Your task to perform on an android device: Go to display settings Image 0: 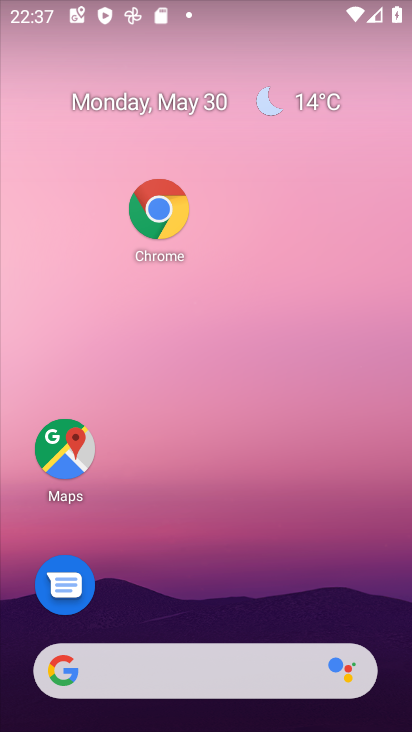
Step 0: click (301, 69)
Your task to perform on an android device: Go to display settings Image 1: 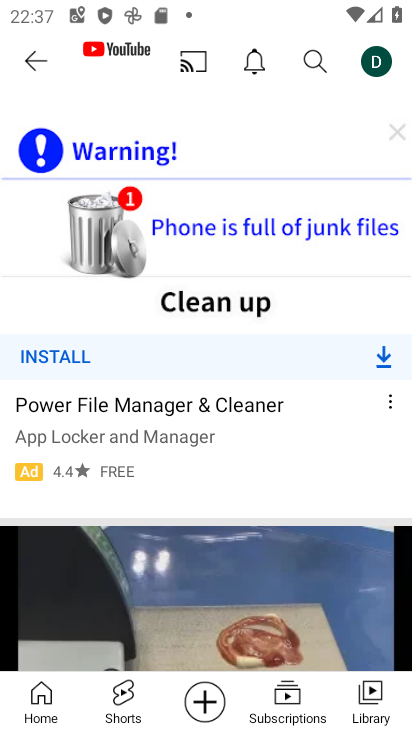
Step 1: press home button
Your task to perform on an android device: Go to display settings Image 2: 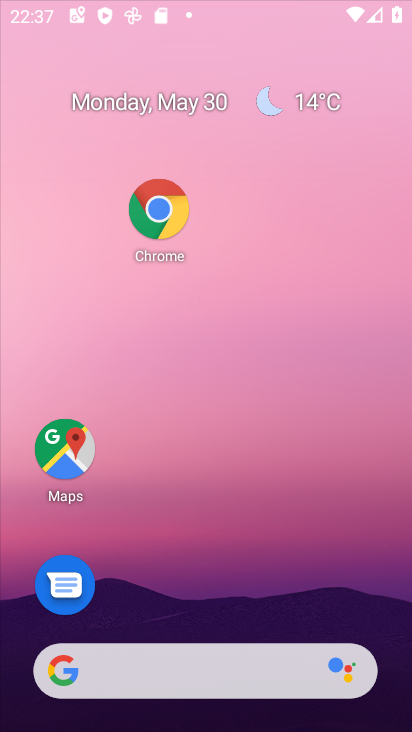
Step 2: drag from (170, 581) to (257, 14)
Your task to perform on an android device: Go to display settings Image 3: 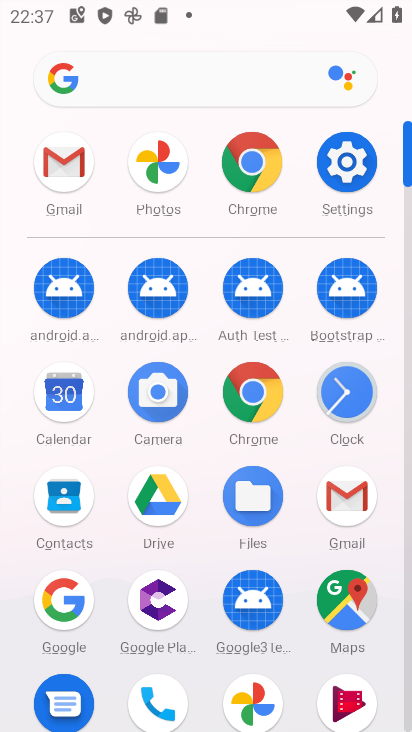
Step 3: click (354, 164)
Your task to perform on an android device: Go to display settings Image 4: 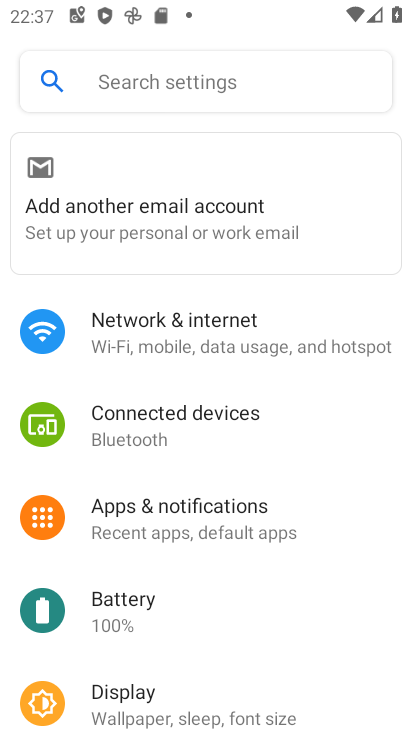
Step 4: drag from (173, 647) to (308, 152)
Your task to perform on an android device: Go to display settings Image 5: 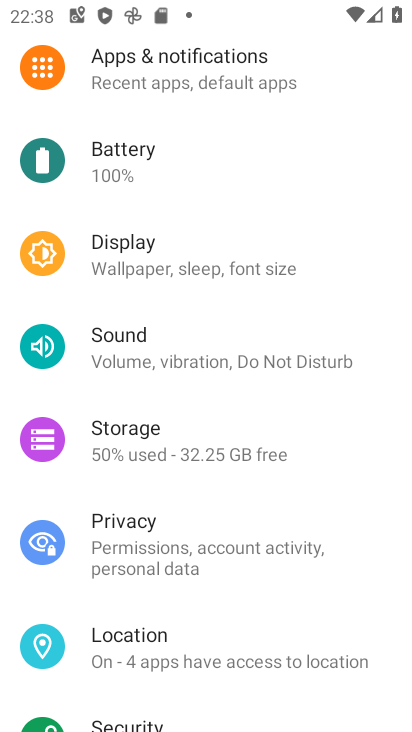
Step 5: click (127, 250)
Your task to perform on an android device: Go to display settings Image 6: 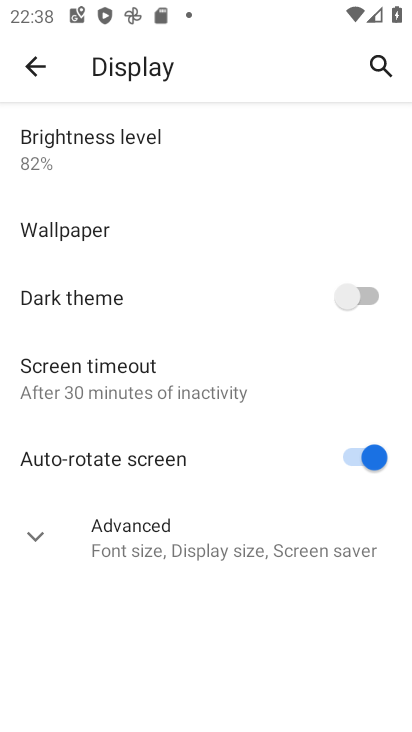
Step 6: task complete